Your task to perform on an android device: Open Android settings Image 0: 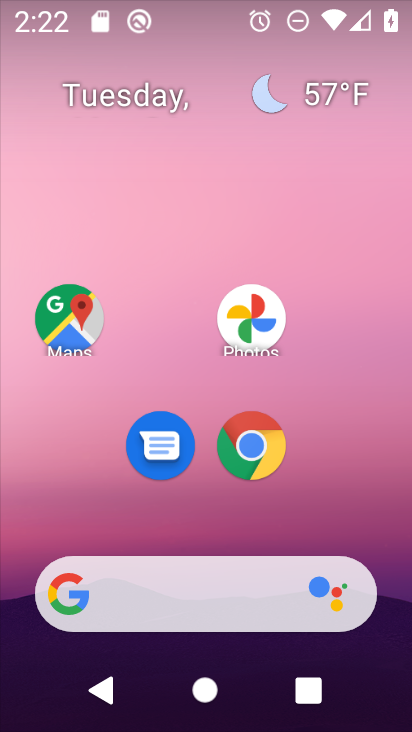
Step 0: drag from (389, 539) to (371, 178)
Your task to perform on an android device: Open Android settings Image 1: 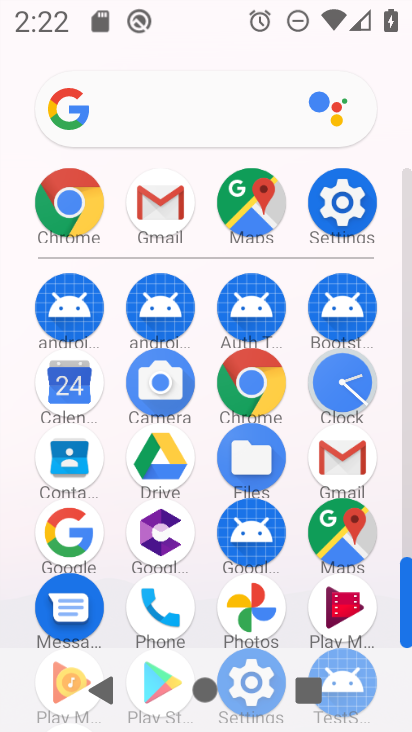
Step 1: click (349, 214)
Your task to perform on an android device: Open Android settings Image 2: 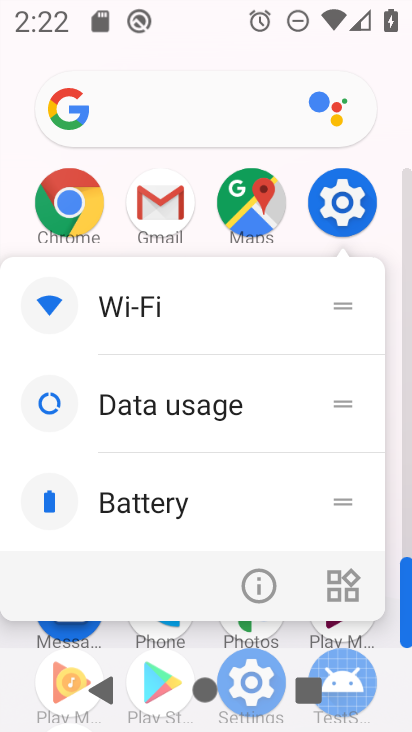
Step 2: click (349, 214)
Your task to perform on an android device: Open Android settings Image 3: 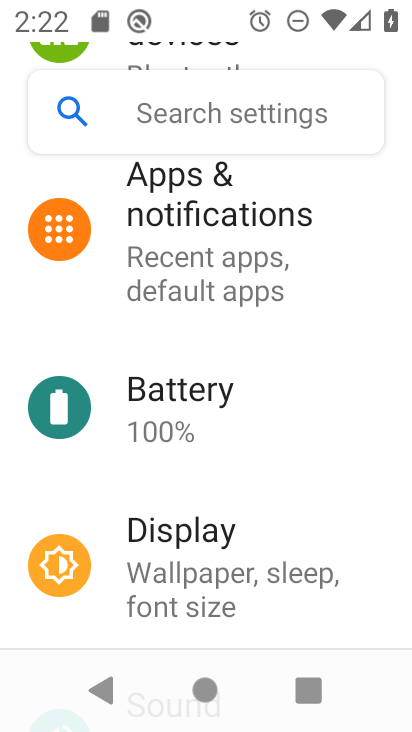
Step 3: drag from (360, 256) to (370, 353)
Your task to perform on an android device: Open Android settings Image 4: 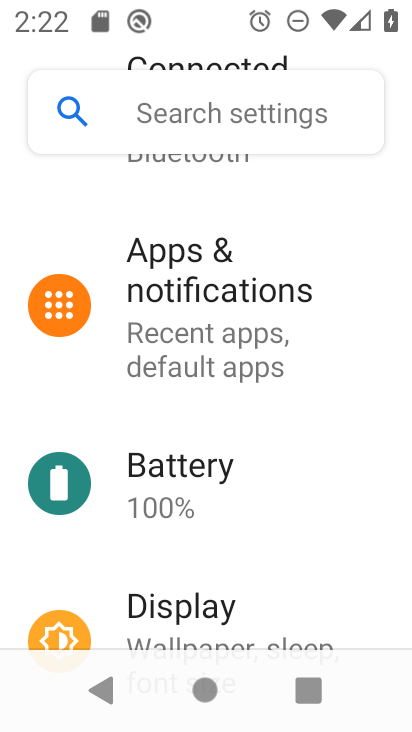
Step 4: drag from (370, 220) to (372, 350)
Your task to perform on an android device: Open Android settings Image 5: 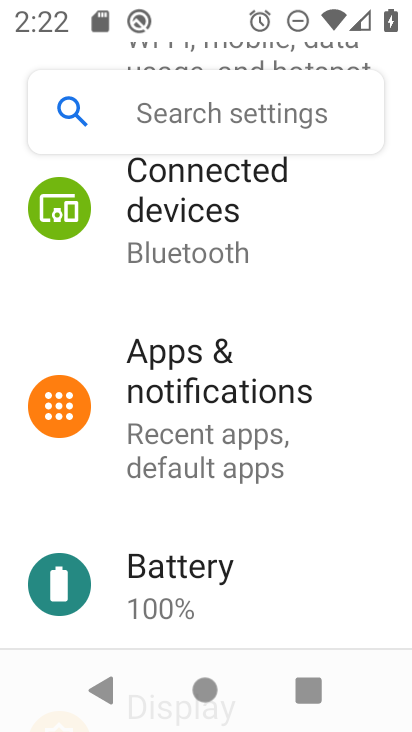
Step 5: drag from (372, 218) to (364, 332)
Your task to perform on an android device: Open Android settings Image 6: 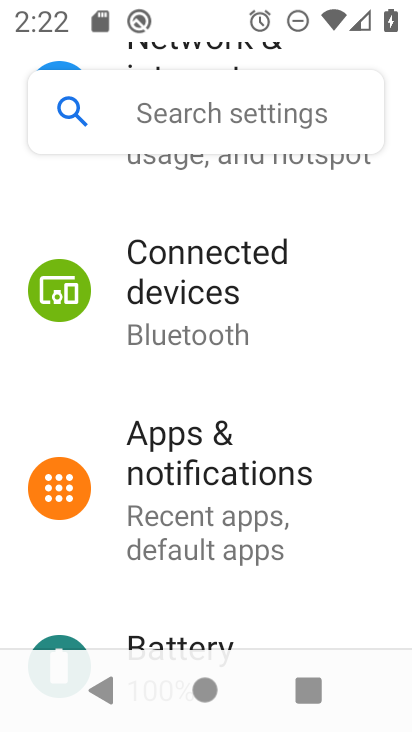
Step 6: drag from (364, 212) to (363, 322)
Your task to perform on an android device: Open Android settings Image 7: 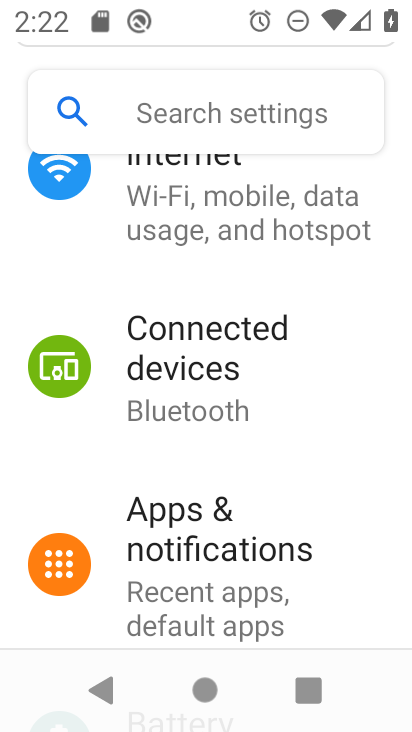
Step 7: drag from (375, 199) to (384, 357)
Your task to perform on an android device: Open Android settings Image 8: 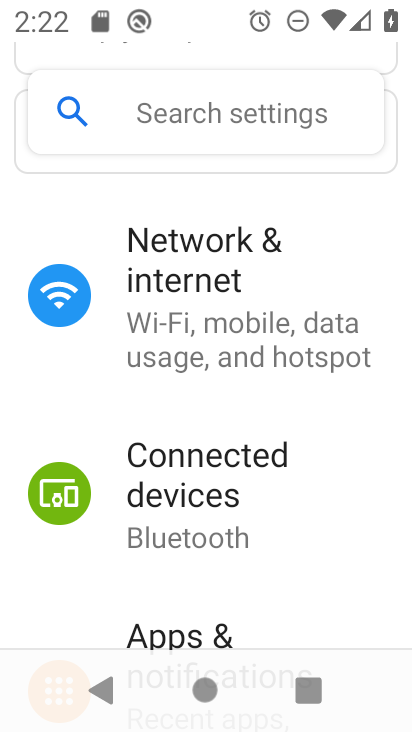
Step 8: drag from (370, 488) to (364, 350)
Your task to perform on an android device: Open Android settings Image 9: 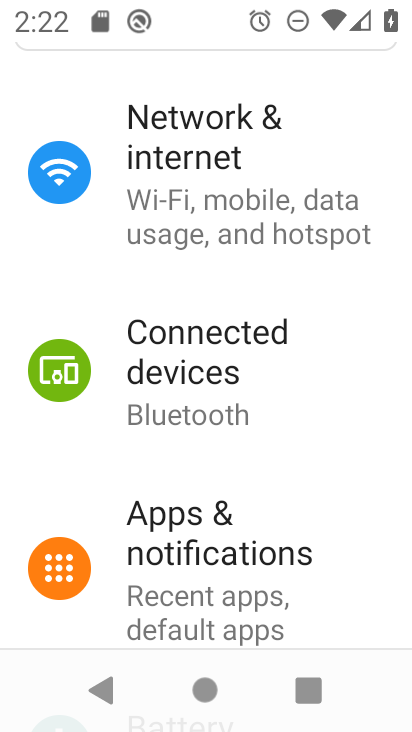
Step 9: drag from (369, 504) to (371, 328)
Your task to perform on an android device: Open Android settings Image 10: 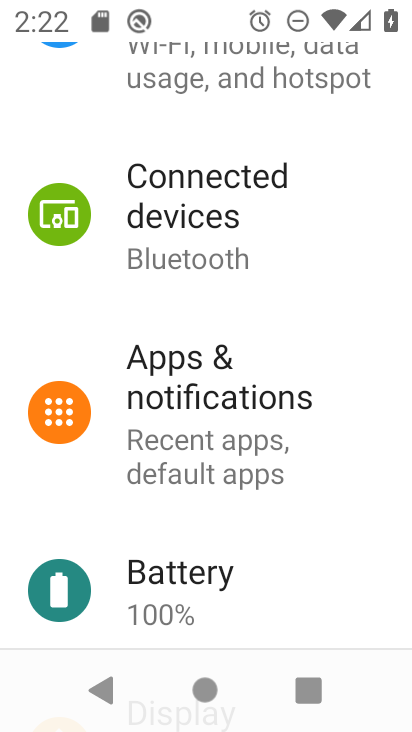
Step 10: drag from (368, 501) to (357, 357)
Your task to perform on an android device: Open Android settings Image 11: 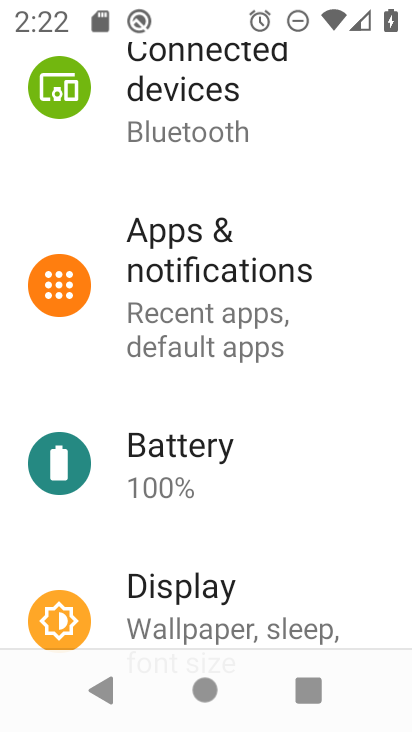
Step 11: drag from (373, 571) to (361, 400)
Your task to perform on an android device: Open Android settings Image 12: 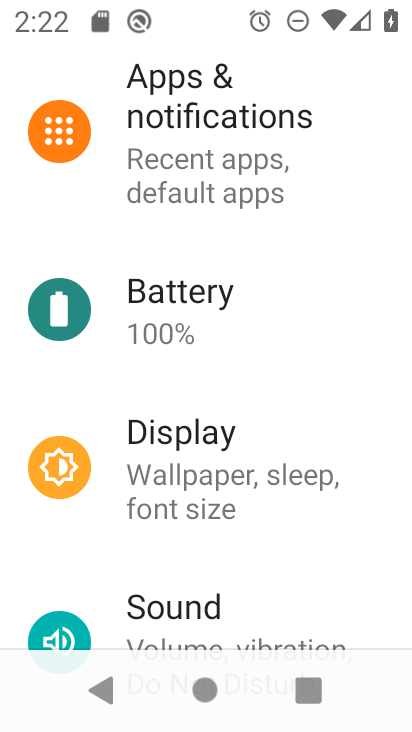
Step 12: drag from (367, 586) to (361, 436)
Your task to perform on an android device: Open Android settings Image 13: 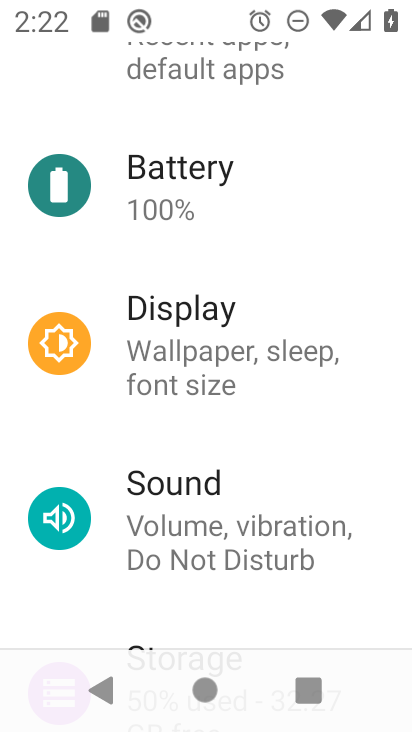
Step 13: drag from (366, 619) to (369, 489)
Your task to perform on an android device: Open Android settings Image 14: 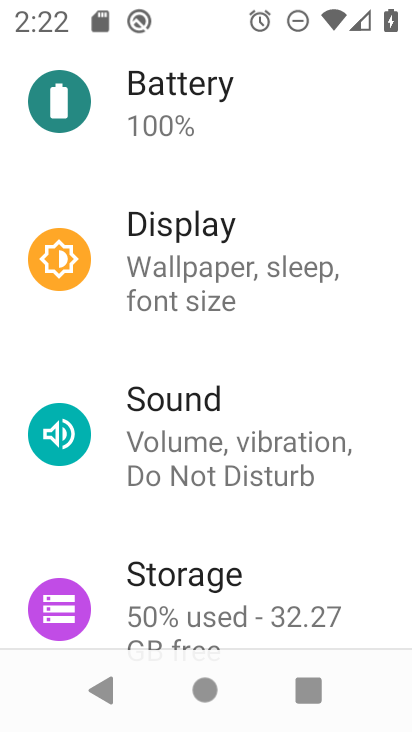
Step 14: drag from (370, 623) to (365, 488)
Your task to perform on an android device: Open Android settings Image 15: 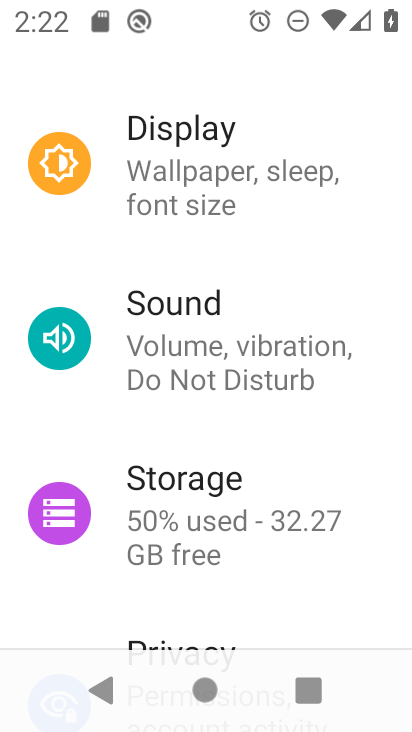
Step 15: drag from (374, 613) to (374, 489)
Your task to perform on an android device: Open Android settings Image 16: 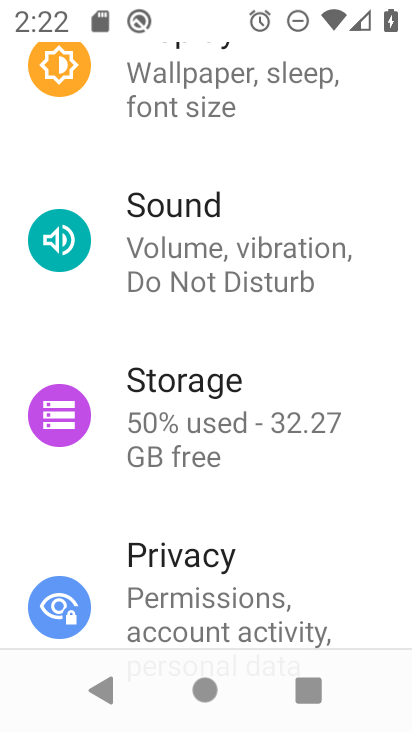
Step 16: drag from (377, 626) to (371, 436)
Your task to perform on an android device: Open Android settings Image 17: 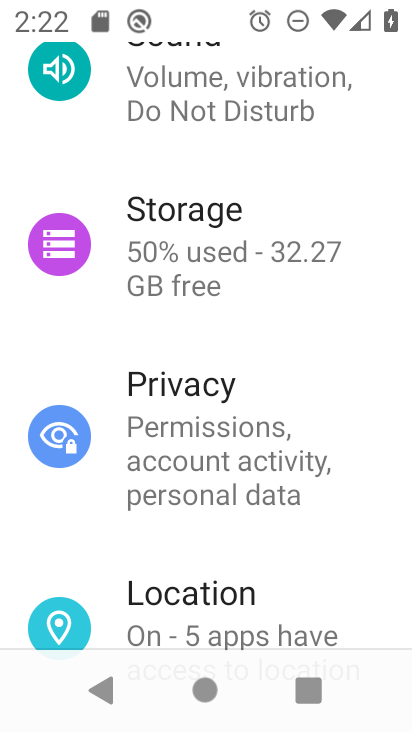
Step 17: drag from (366, 600) to (367, 437)
Your task to perform on an android device: Open Android settings Image 18: 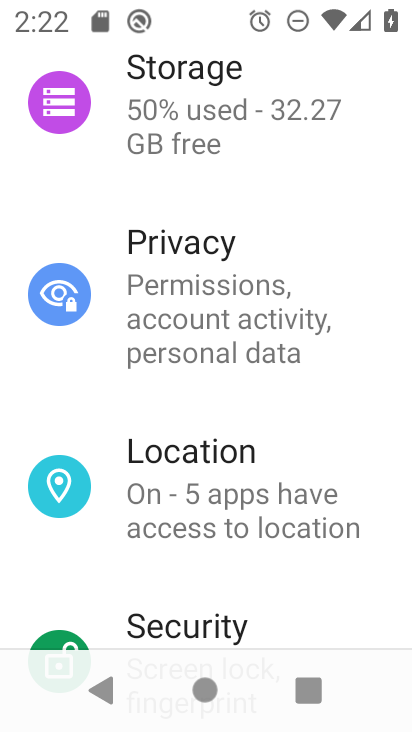
Step 18: drag from (372, 598) to (366, 439)
Your task to perform on an android device: Open Android settings Image 19: 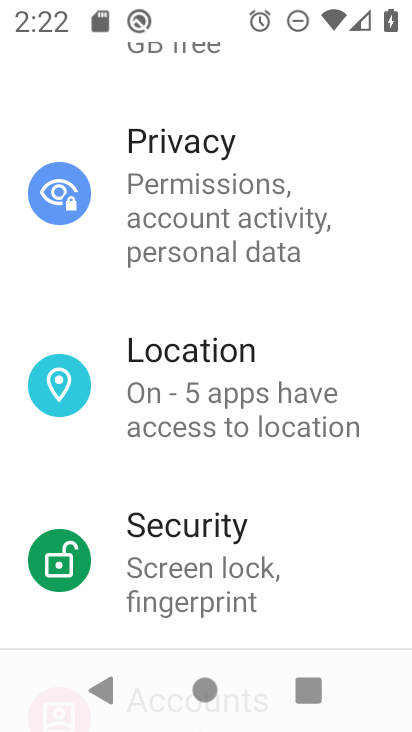
Step 19: drag from (358, 601) to (358, 396)
Your task to perform on an android device: Open Android settings Image 20: 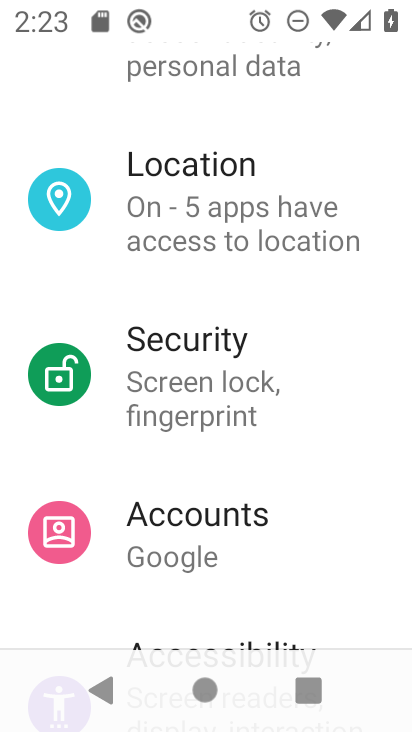
Step 20: drag from (354, 592) to (354, 463)
Your task to perform on an android device: Open Android settings Image 21: 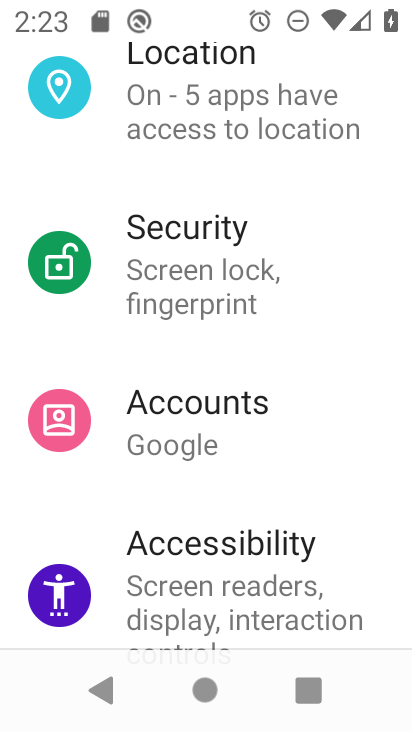
Step 21: drag from (371, 609) to (368, 465)
Your task to perform on an android device: Open Android settings Image 22: 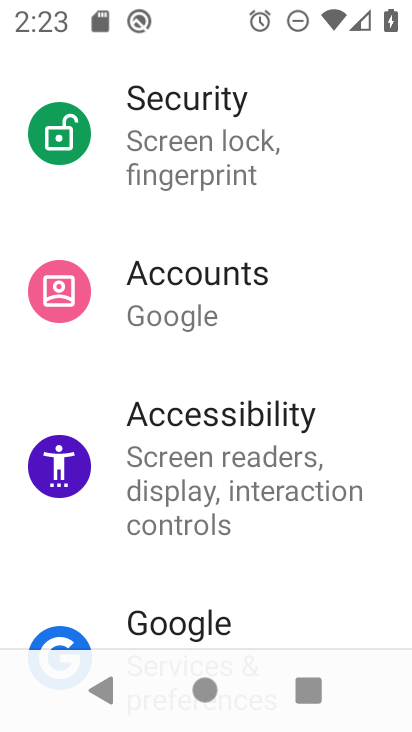
Step 22: drag from (371, 624) to (372, 467)
Your task to perform on an android device: Open Android settings Image 23: 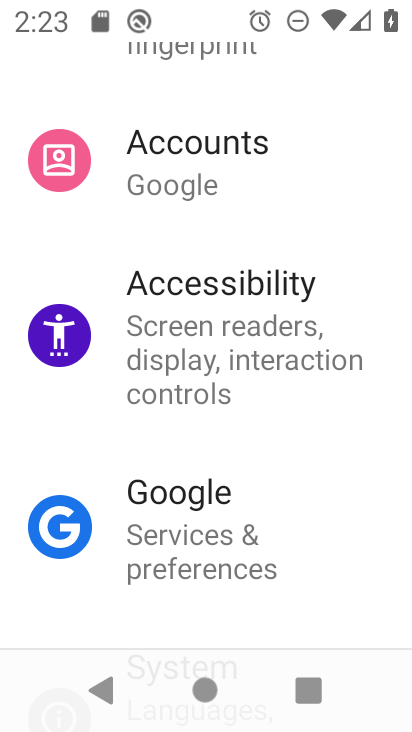
Step 23: drag from (366, 603) to (365, 479)
Your task to perform on an android device: Open Android settings Image 24: 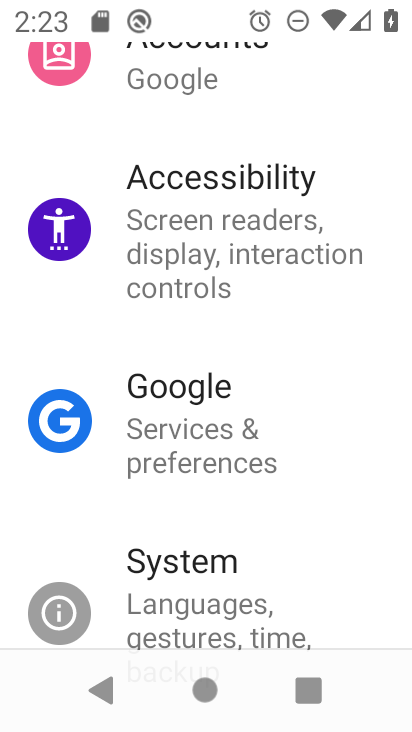
Step 24: click (285, 611)
Your task to perform on an android device: Open Android settings Image 25: 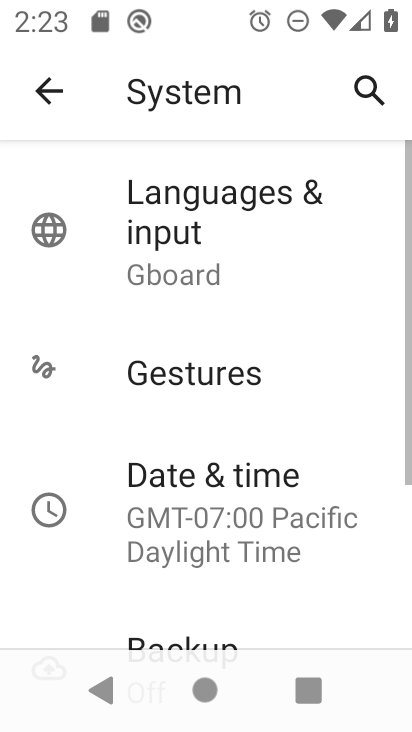
Step 25: drag from (335, 602) to (338, 419)
Your task to perform on an android device: Open Android settings Image 26: 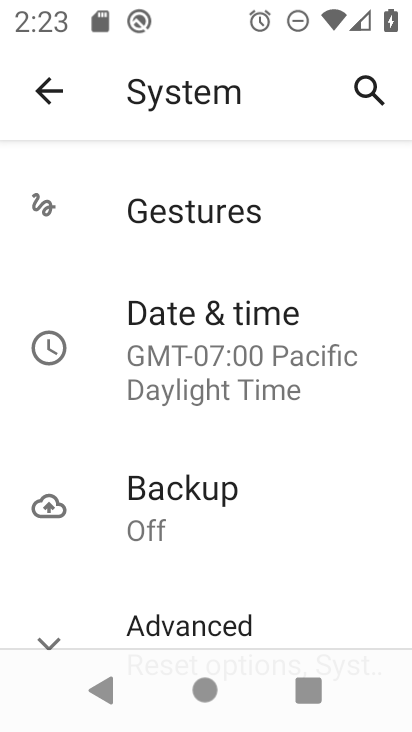
Step 26: drag from (342, 604) to (346, 446)
Your task to perform on an android device: Open Android settings Image 27: 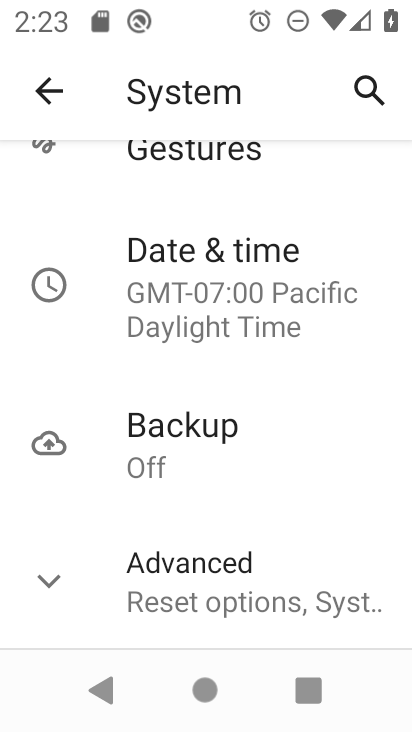
Step 27: click (257, 599)
Your task to perform on an android device: Open Android settings Image 28: 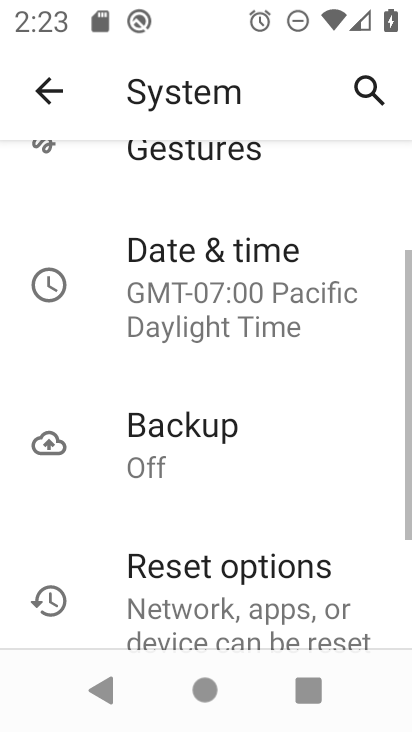
Step 28: task complete